Your task to perform on an android device: add a contact in the contacts app Image 0: 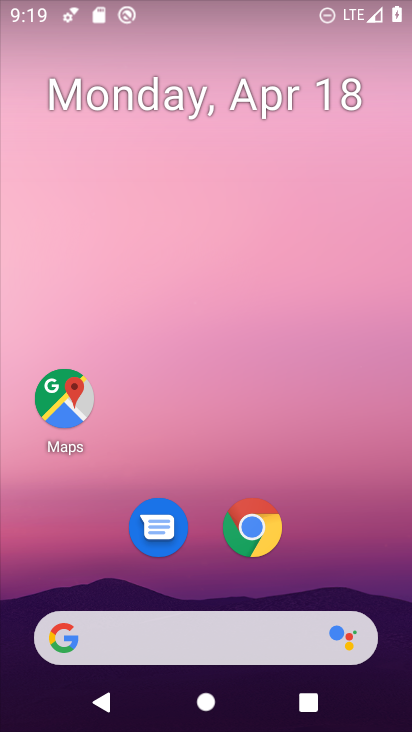
Step 0: drag from (391, 610) to (277, 2)
Your task to perform on an android device: add a contact in the contacts app Image 1: 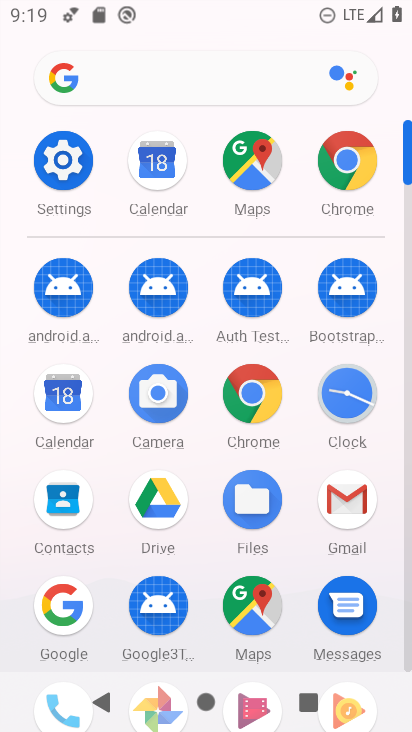
Step 1: drag from (17, 543) to (35, 252)
Your task to perform on an android device: add a contact in the contacts app Image 2: 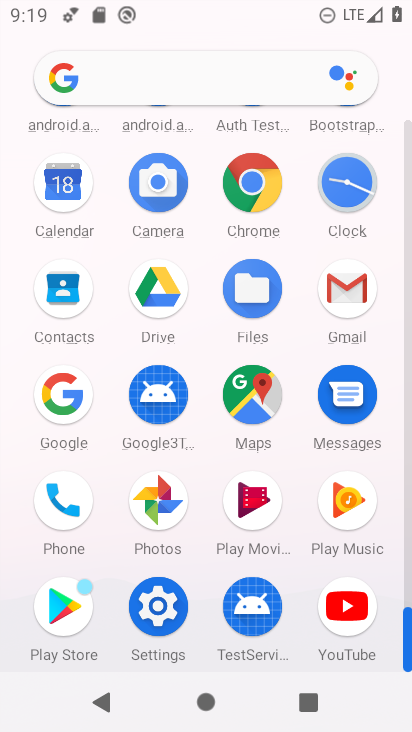
Step 2: click (62, 284)
Your task to perform on an android device: add a contact in the contacts app Image 3: 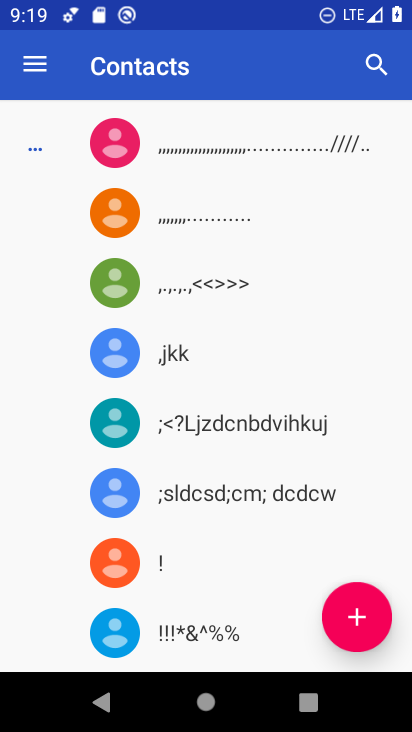
Step 3: click (363, 619)
Your task to perform on an android device: add a contact in the contacts app Image 4: 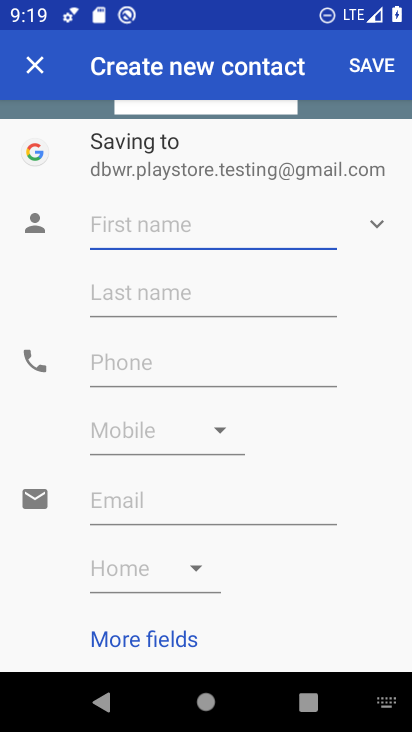
Step 4: type "@1qwd"
Your task to perform on an android device: add a contact in the contacts app Image 5: 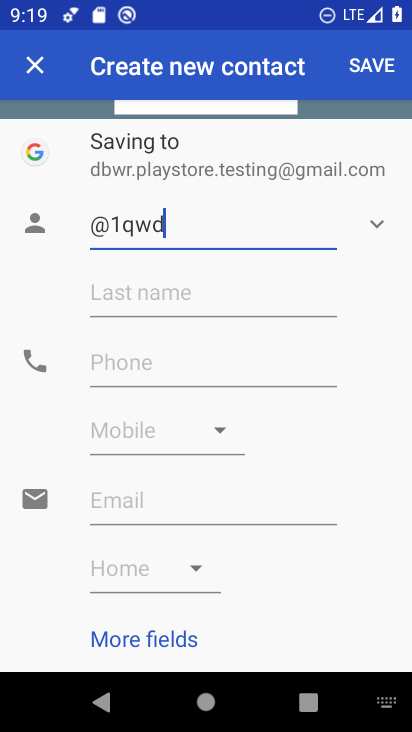
Step 5: click (200, 362)
Your task to perform on an android device: add a contact in the contacts app Image 6: 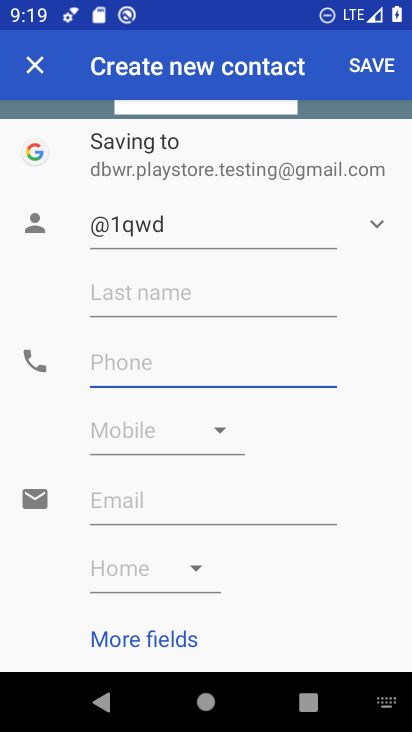
Step 6: type "24456567890765"
Your task to perform on an android device: add a contact in the contacts app Image 7: 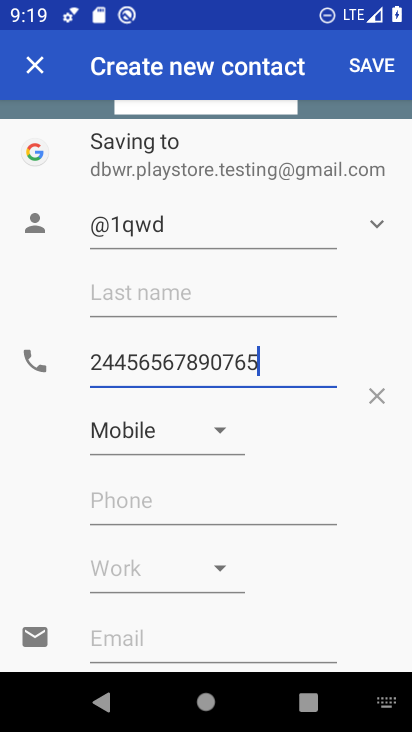
Step 7: type ""
Your task to perform on an android device: add a contact in the contacts app Image 8: 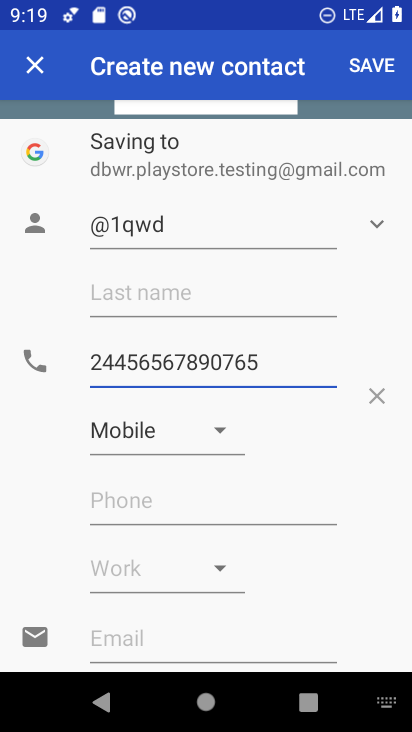
Step 8: click (355, 65)
Your task to perform on an android device: add a contact in the contacts app Image 9: 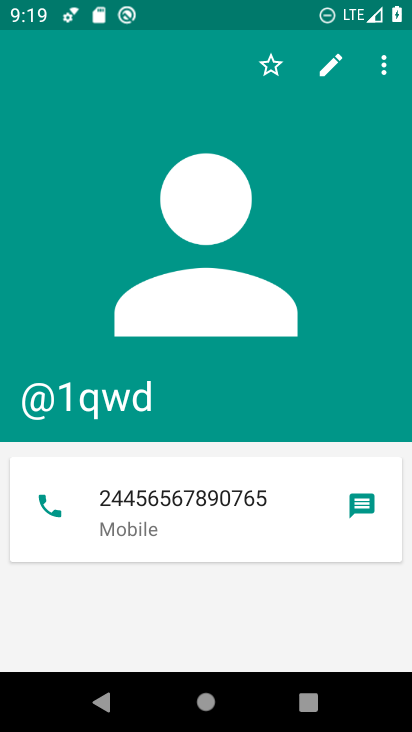
Step 9: task complete